Your task to perform on an android device: see sites visited before in the chrome app Image 0: 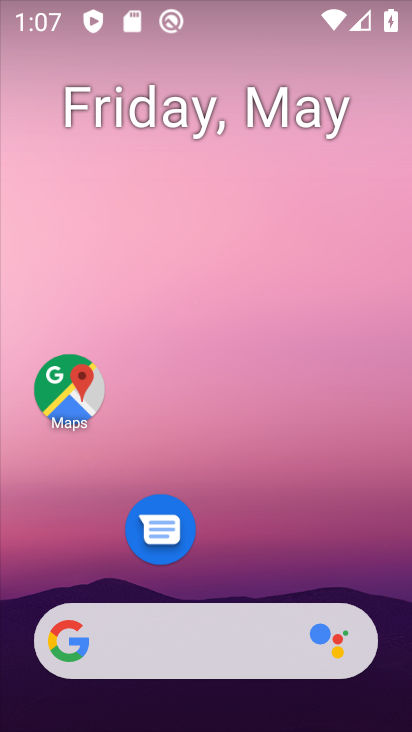
Step 0: drag from (261, 569) to (259, 199)
Your task to perform on an android device: see sites visited before in the chrome app Image 1: 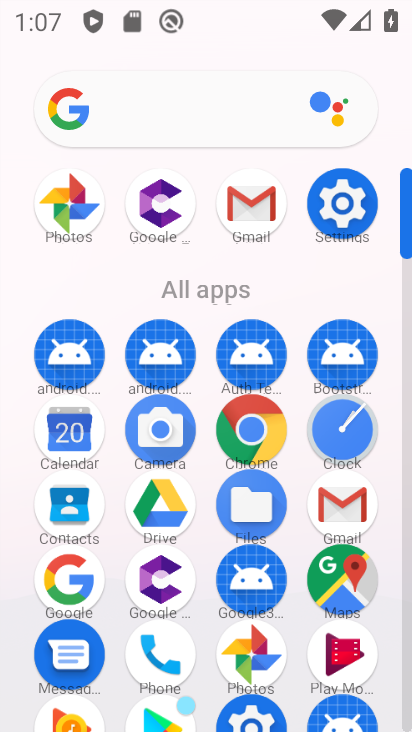
Step 1: click (247, 426)
Your task to perform on an android device: see sites visited before in the chrome app Image 2: 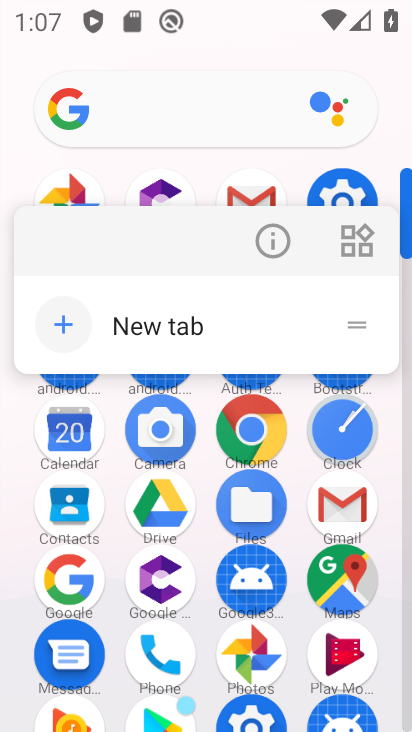
Step 2: click (280, 251)
Your task to perform on an android device: see sites visited before in the chrome app Image 3: 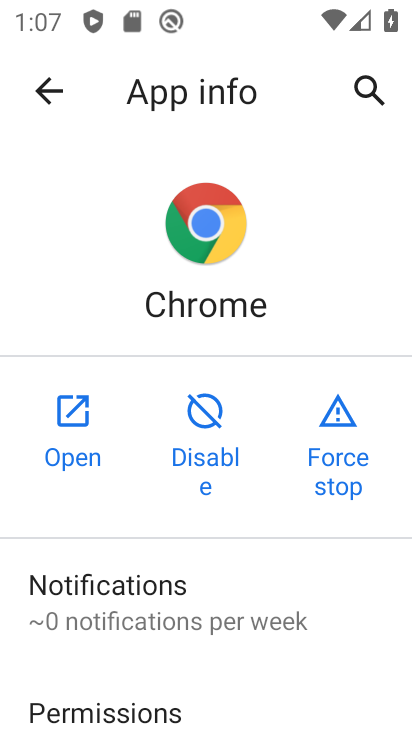
Step 3: click (68, 439)
Your task to perform on an android device: see sites visited before in the chrome app Image 4: 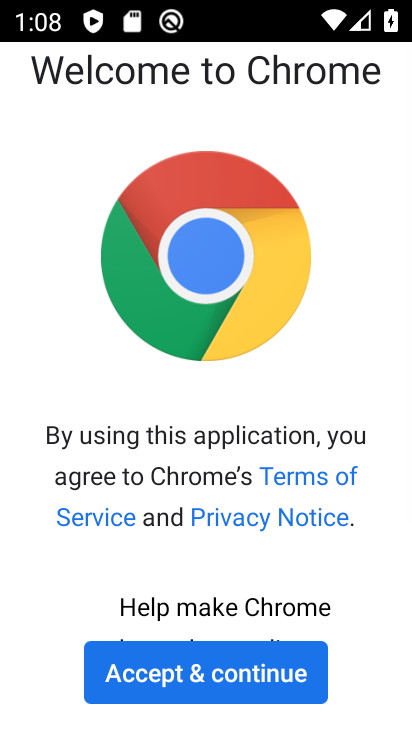
Step 4: click (191, 654)
Your task to perform on an android device: see sites visited before in the chrome app Image 5: 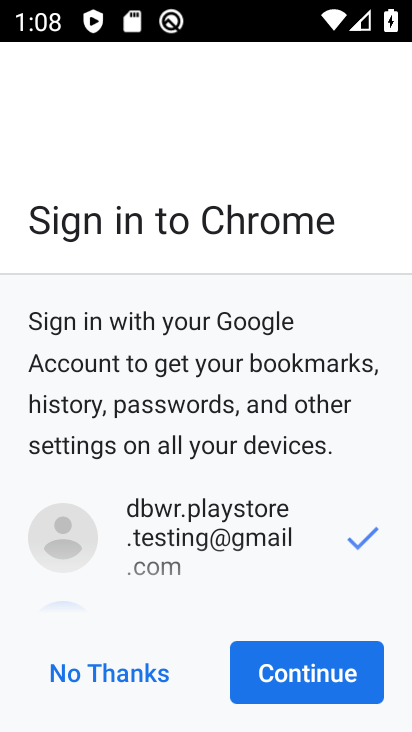
Step 5: click (118, 685)
Your task to perform on an android device: see sites visited before in the chrome app Image 6: 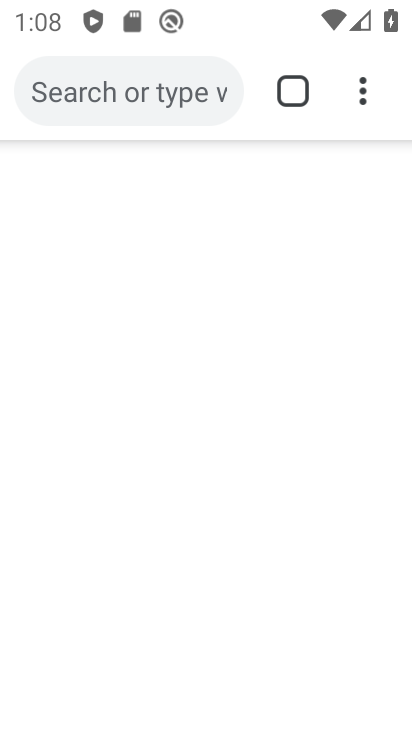
Step 6: click (376, 78)
Your task to perform on an android device: see sites visited before in the chrome app Image 7: 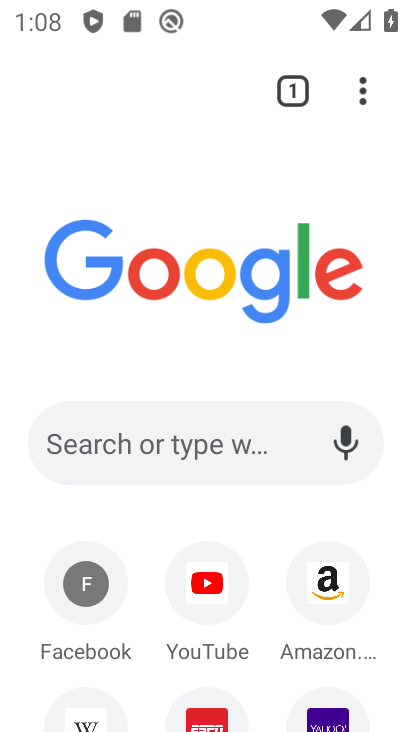
Step 7: click (367, 86)
Your task to perform on an android device: see sites visited before in the chrome app Image 8: 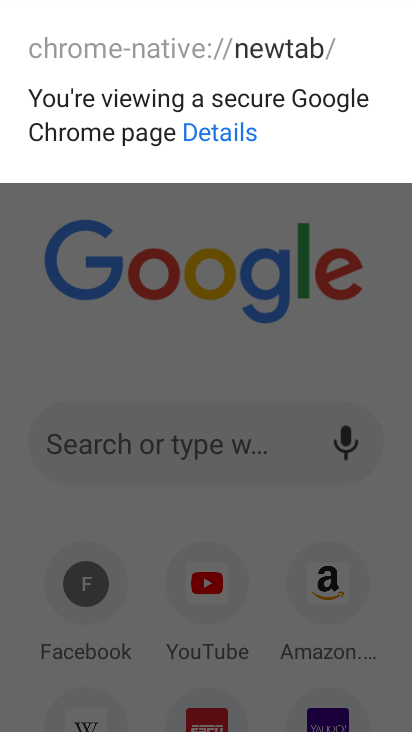
Step 8: click (223, 282)
Your task to perform on an android device: see sites visited before in the chrome app Image 9: 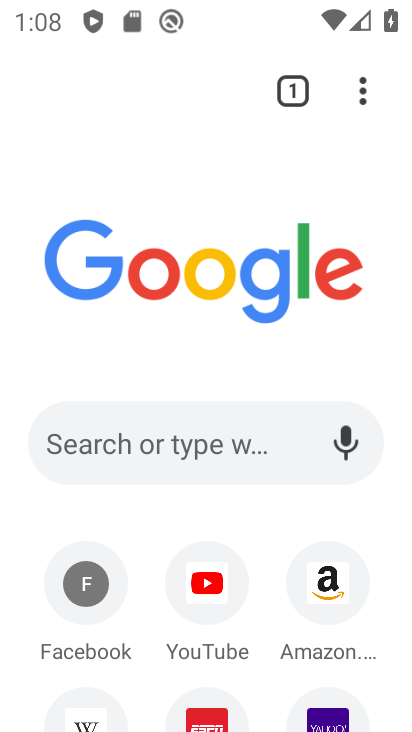
Step 9: click (357, 110)
Your task to perform on an android device: see sites visited before in the chrome app Image 10: 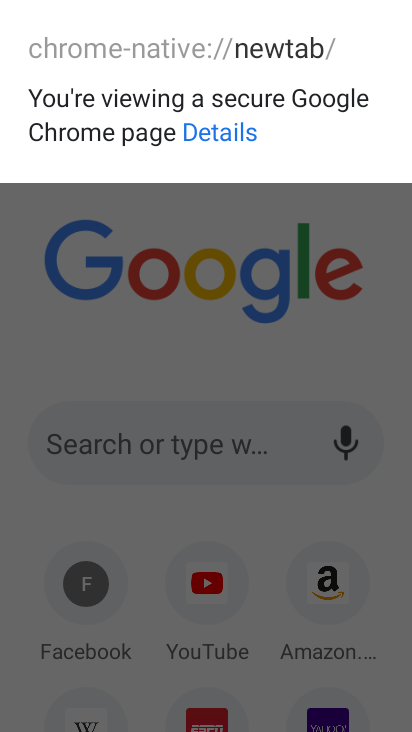
Step 10: click (184, 218)
Your task to perform on an android device: see sites visited before in the chrome app Image 11: 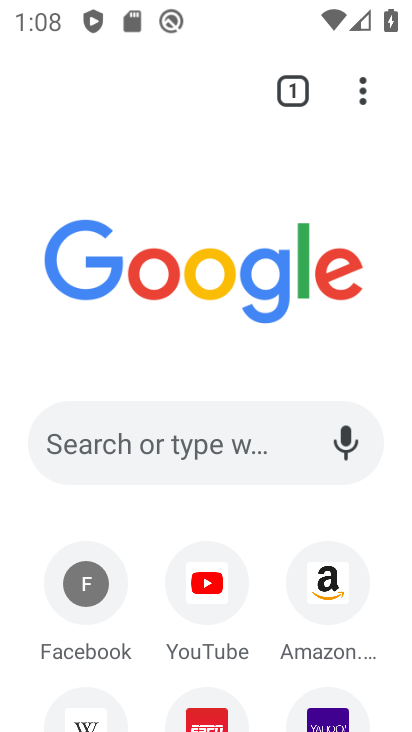
Step 11: click (363, 103)
Your task to perform on an android device: see sites visited before in the chrome app Image 12: 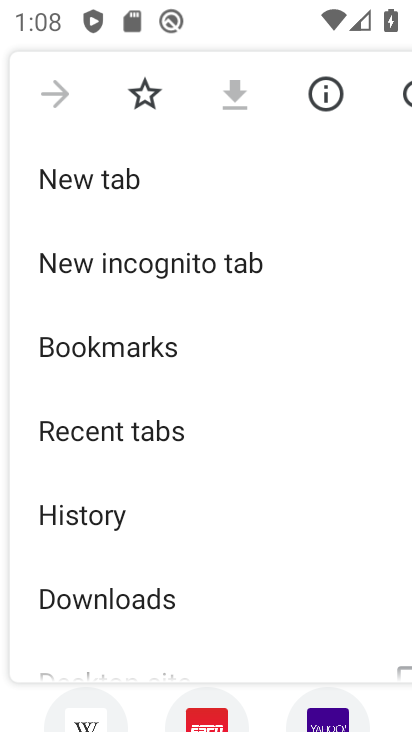
Step 12: click (146, 357)
Your task to perform on an android device: see sites visited before in the chrome app Image 13: 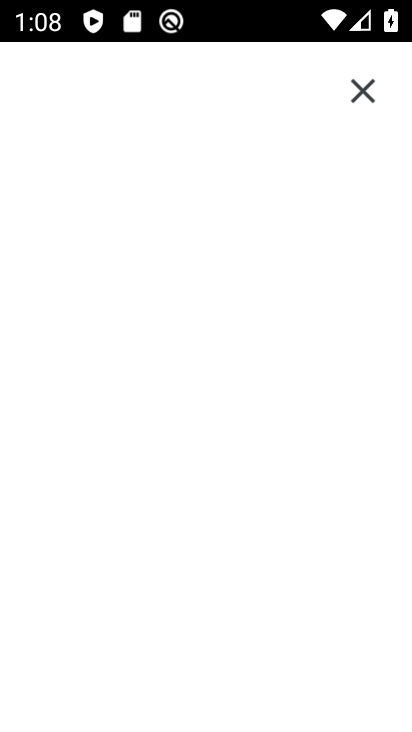
Step 13: task complete